Your task to perform on an android device: Open calendar and show me the second week of next month Image 0: 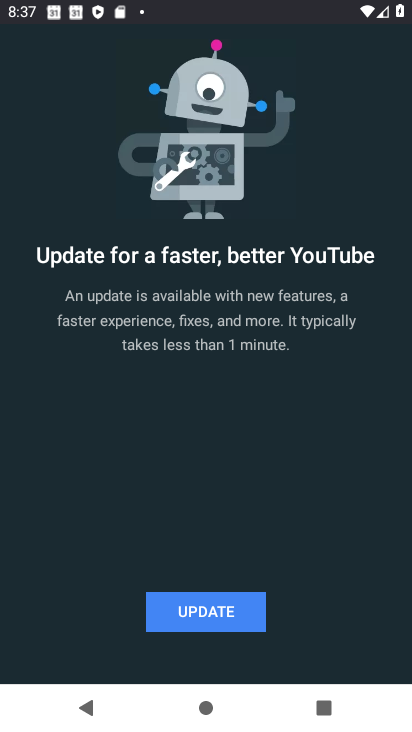
Step 0: press home button
Your task to perform on an android device: Open calendar and show me the second week of next month Image 1: 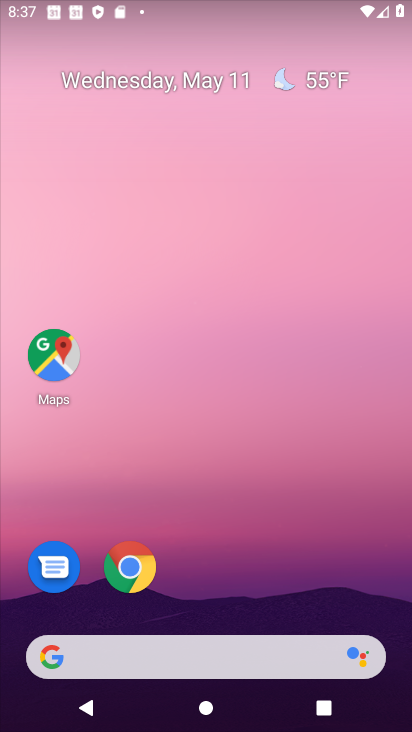
Step 1: drag from (207, 618) to (399, 149)
Your task to perform on an android device: Open calendar and show me the second week of next month Image 2: 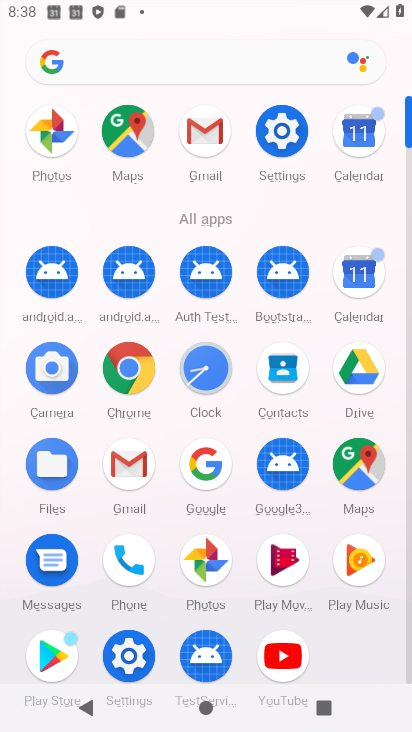
Step 2: click (362, 289)
Your task to perform on an android device: Open calendar and show me the second week of next month Image 3: 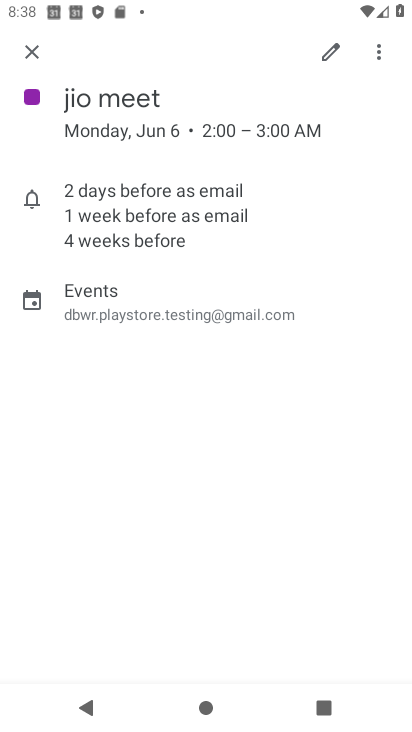
Step 3: click (39, 53)
Your task to perform on an android device: Open calendar and show me the second week of next month Image 4: 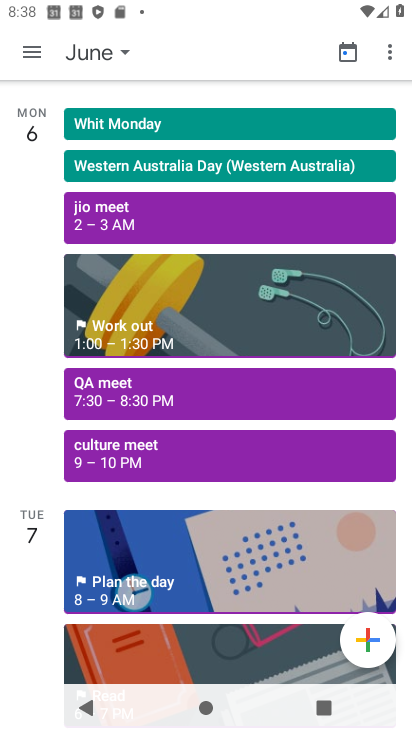
Step 4: click (35, 47)
Your task to perform on an android device: Open calendar and show me the second week of next month Image 5: 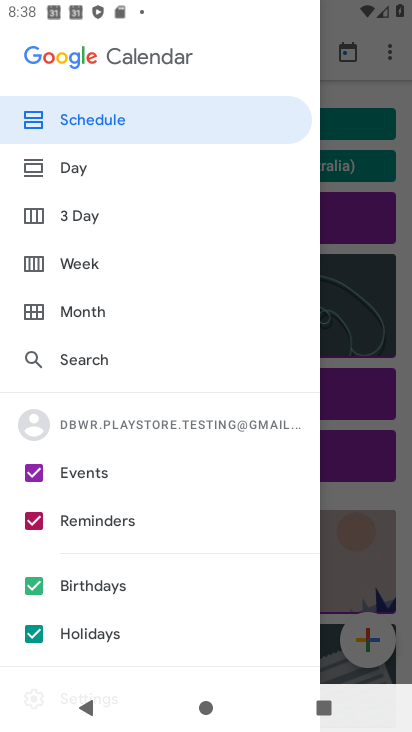
Step 5: click (88, 265)
Your task to perform on an android device: Open calendar and show me the second week of next month Image 6: 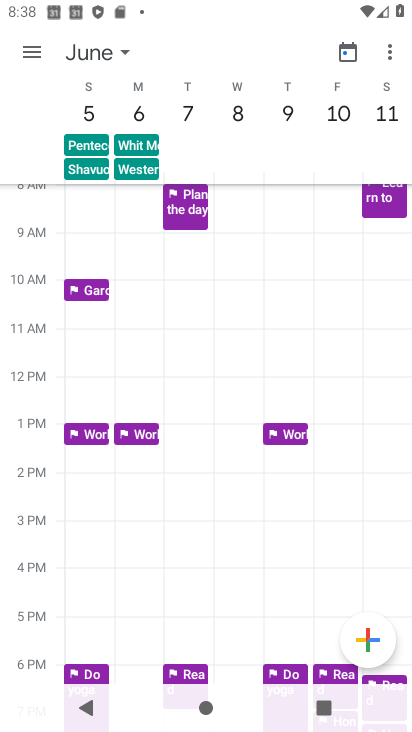
Step 6: task complete